Your task to perform on an android device: Go to wifi settings Image 0: 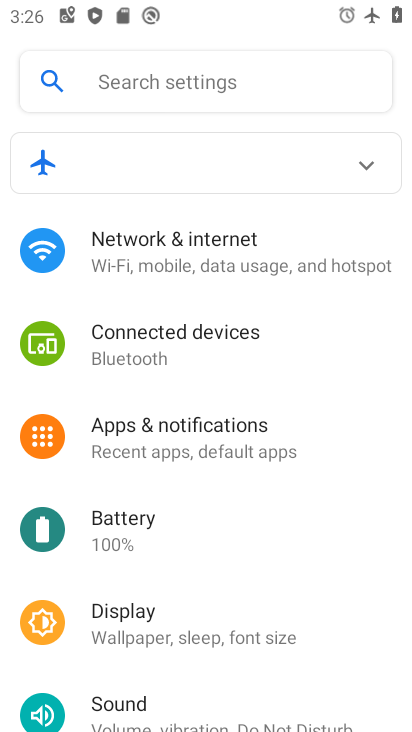
Step 0: click (272, 248)
Your task to perform on an android device: Go to wifi settings Image 1: 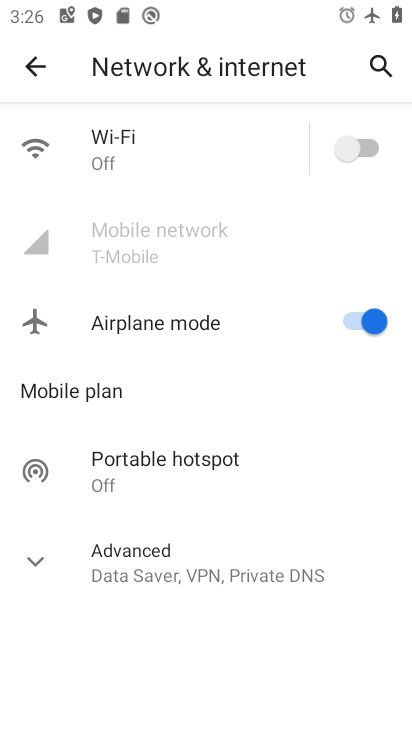
Step 1: click (171, 162)
Your task to perform on an android device: Go to wifi settings Image 2: 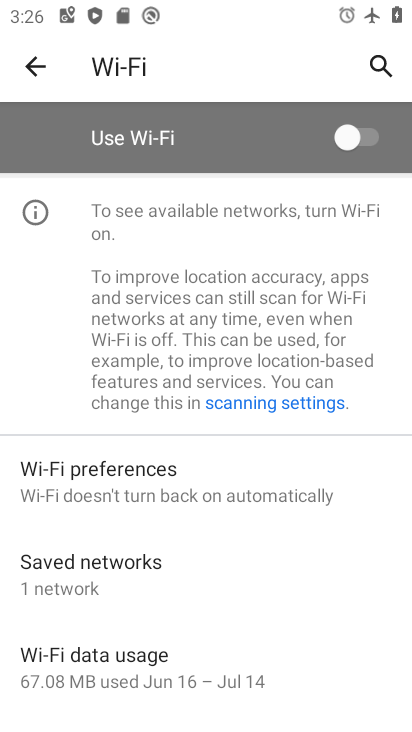
Step 2: task complete